Your task to perform on an android device: Go to sound settings Image 0: 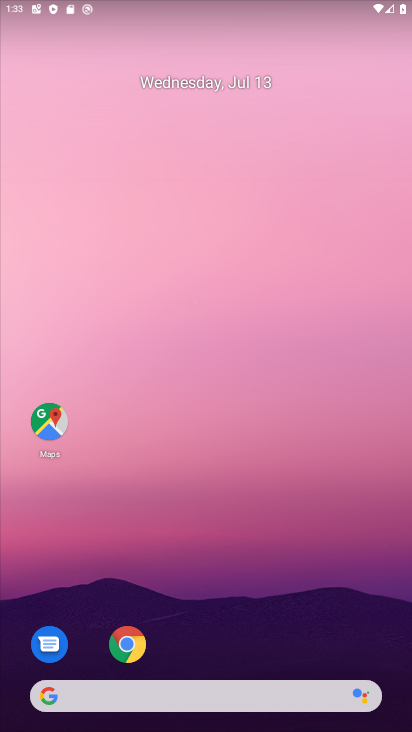
Step 0: drag from (292, 612) to (292, 216)
Your task to perform on an android device: Go to sound settings Image 1: 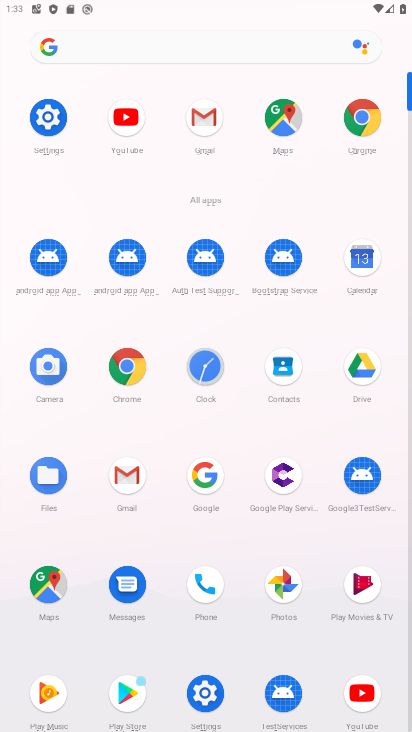
Step 1: click (43, 119)
Your task to perform on an android device: Go to sound settings Image 2: 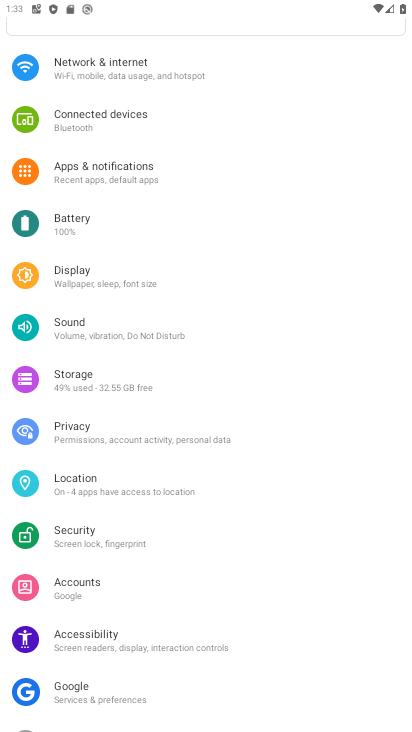
Step 2: click (85, 324)
Your task to perform on an android device: Go to sound settings Image 3: 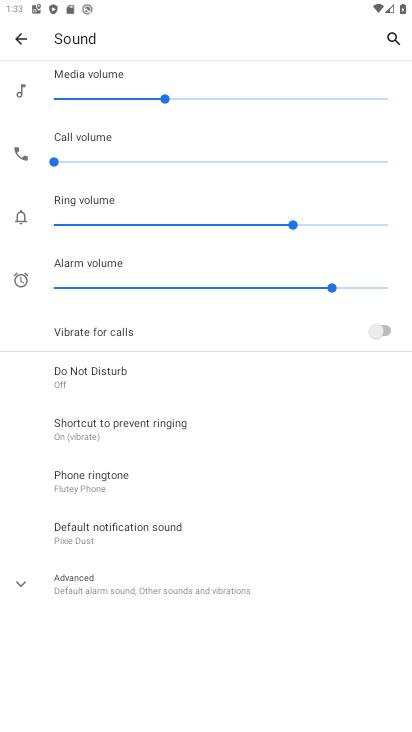
Step 3: task complete